Your task to perform on an android device: open sync settings in chrome Image 0: 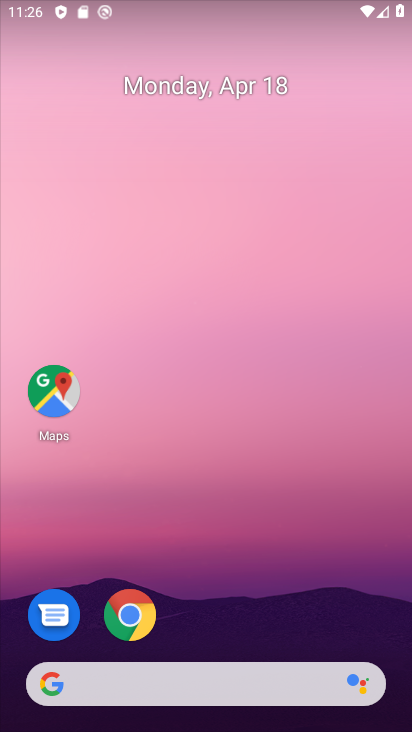
Step 0: click (124, 616)
Your task to perform on an android device: open sync settings in chrome Image 1: 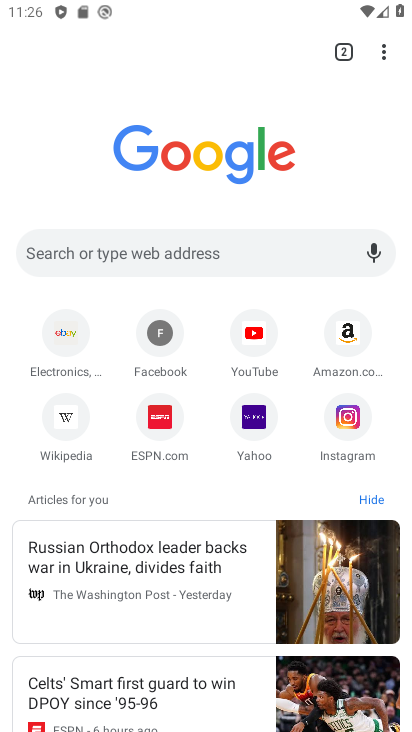
Step 1: click (384, 50)
Your task to perform on an android device: open sync settings in chrome Image 2: 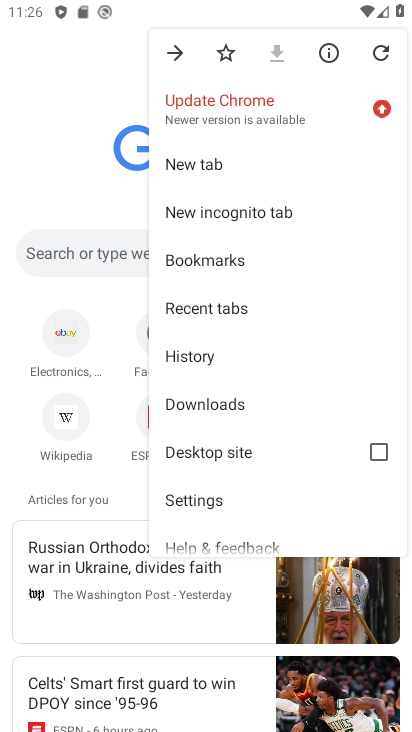
Step 2: click (188, 499)
Your task to perform on an android device: open sync settings in chrome Image 3: 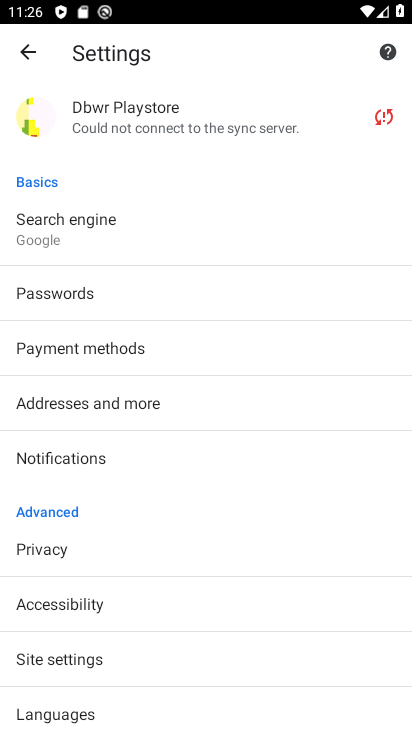
Step 3: click (46, 651)
Your task to perform on an android device: open sync settings in chrome Image 4: 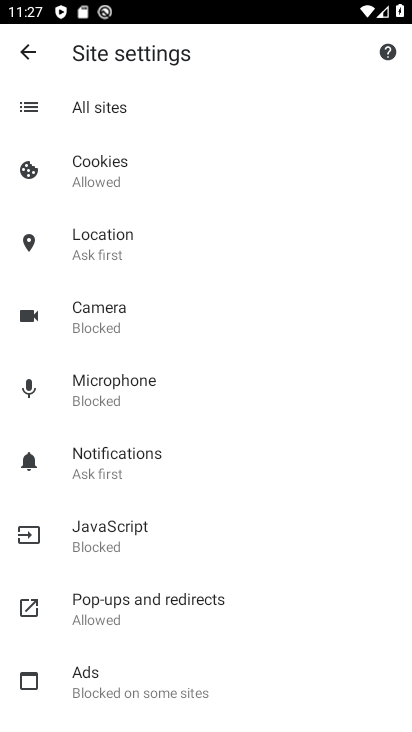
Step 4: drag from (203, 665) to (201, 172)
Your task to perform on an android device: open sync settings in chrome Image 5: 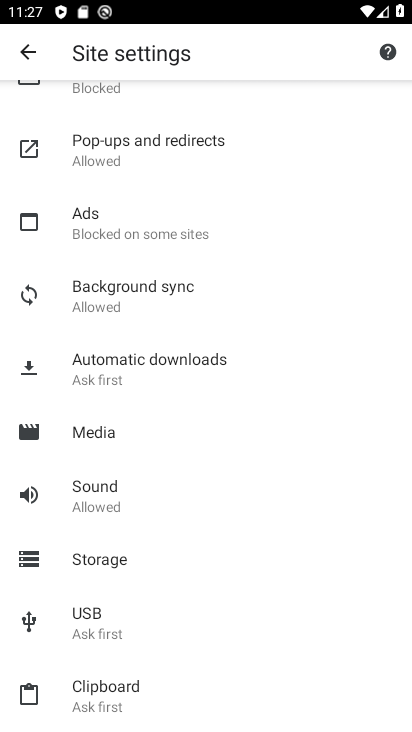
Step 5: click (161, 285)
Your task to perform on an android device: open sync settings in chrome Image 6: 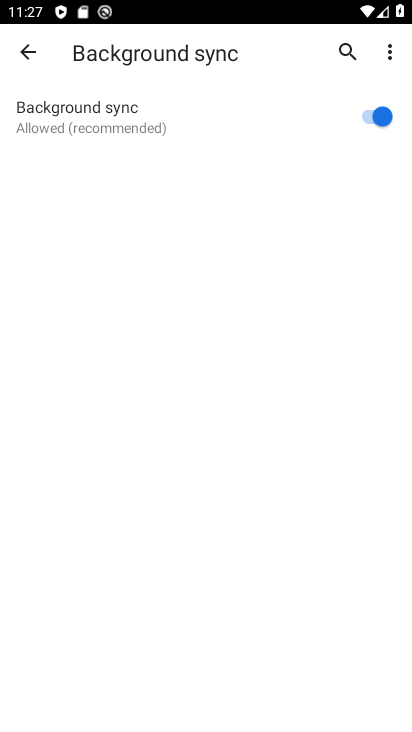
Step 6: task complete